Your task to perform on an android device: delete a single message in the gmail app Image 0: 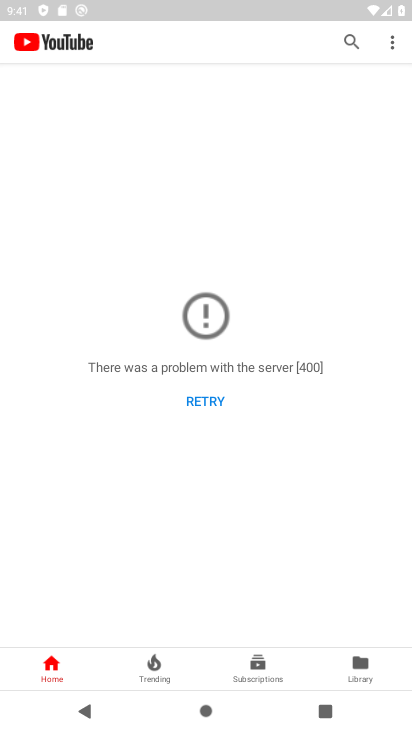
Step 0: press home button
Your task to perform on an android device: delete a single message in the gmail app Image 1: 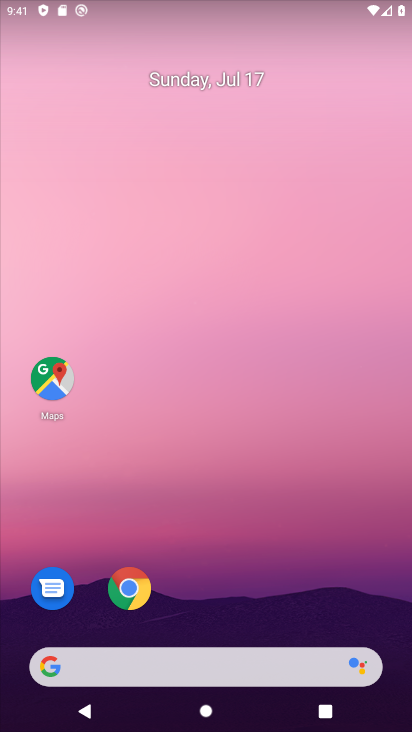
Step 1: drag from (270, 599) to (212, 3)
Your task to perform on an android device: delete a single message in the gmail app Image 2: 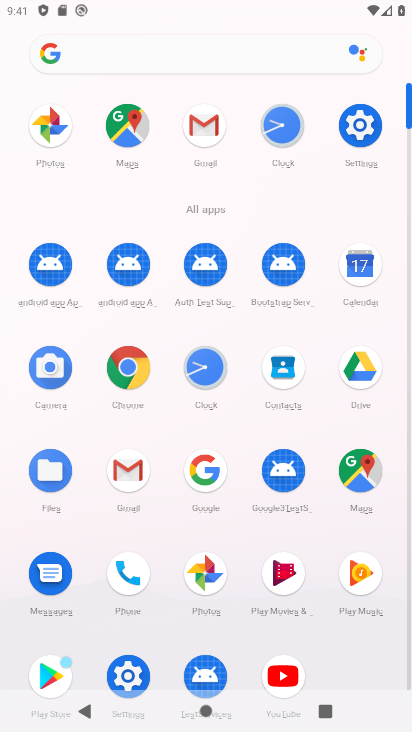
Step 2: click (186, 139)
Your task to perform on an android device: delete a single message in the gmail app Image 3: 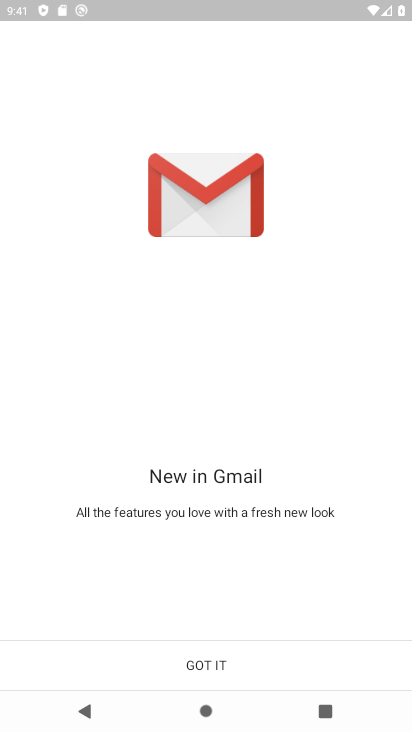
Step 3: click (229, 663)
Your task to perform on an android device: delete a single message in the gmail app Image 4: 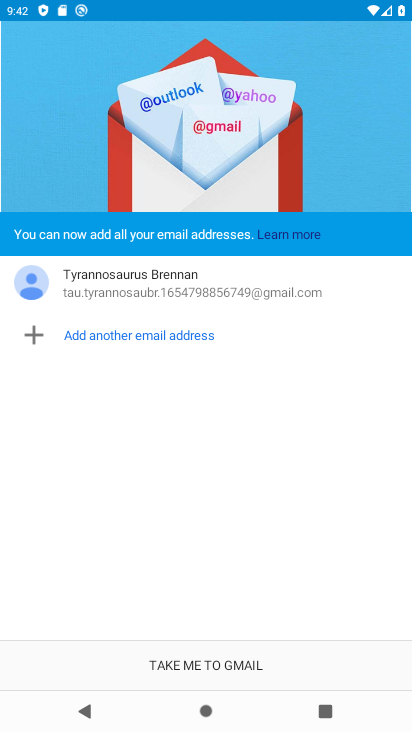
Step 4: click (229, 663)
Your task to perform on an android device: delete a single message in the gmail app Image 5: 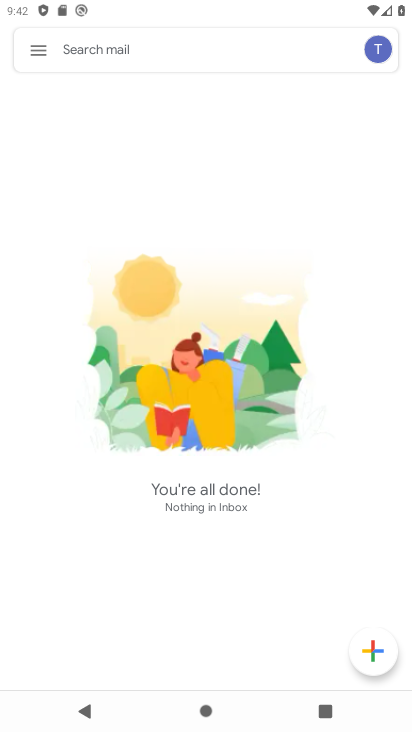
Step 5: task complete